Your task to perform on an android device: delete a single message in the gmail app Image 0: 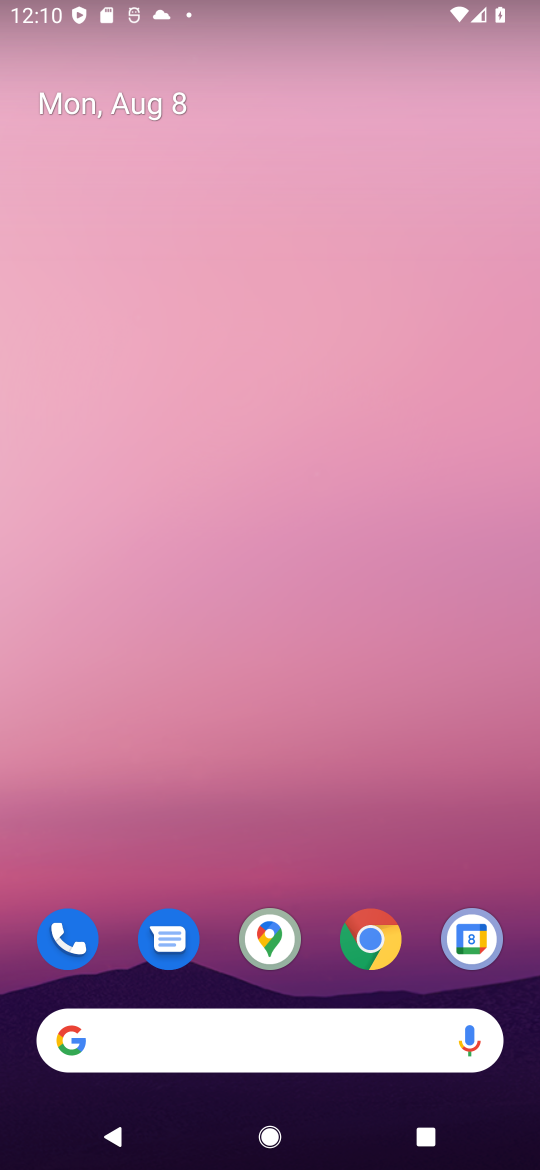
Step 0: drag from (248, 1041) to (293, 529)
Your task to perform on an android device: delete a single message in the gmail app Image 1: 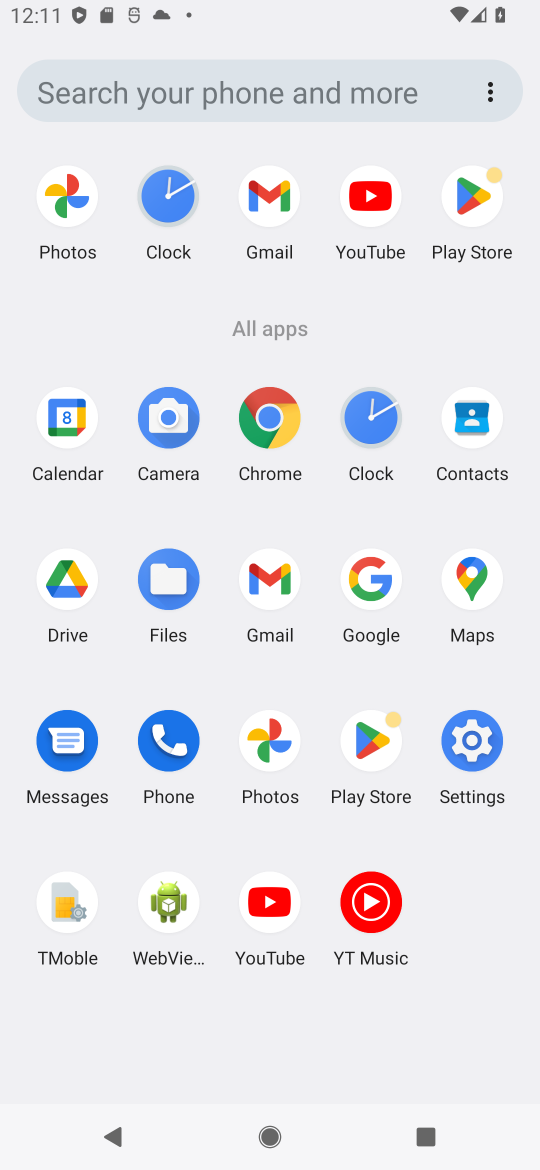
Step 1: click (266, 199)
Your task to perform on an android device: delete a single message in the gmail app Image 2: 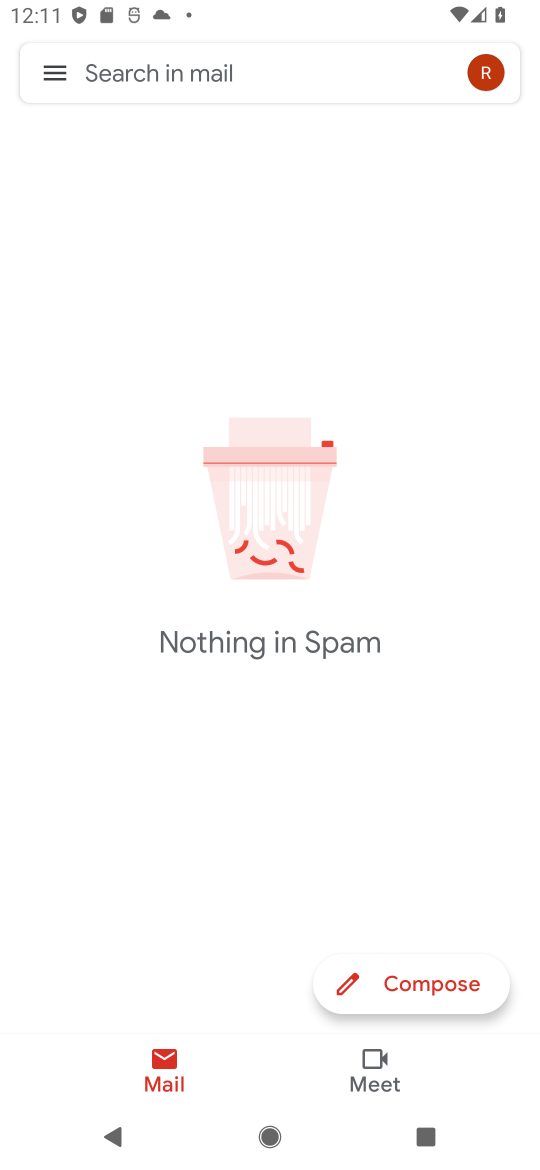
Step 2: click (54, 72)
Your task to perform on an android device: delete a single message in the gmail app Image 3: 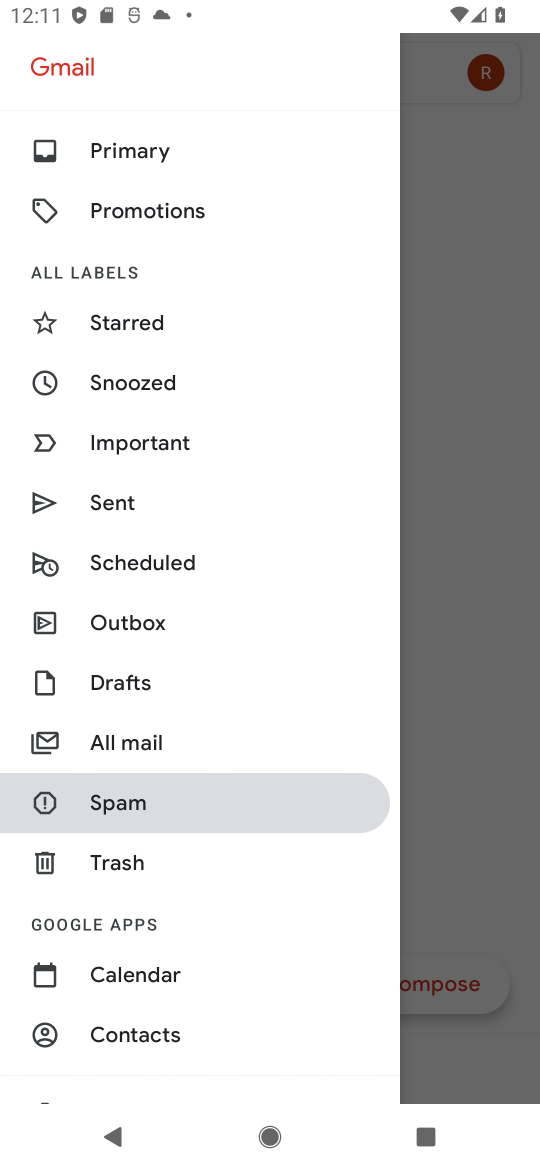
Step 3: click (111, 736)
Your task to perform on an android device: delete a single message in the gmail app Image 4: 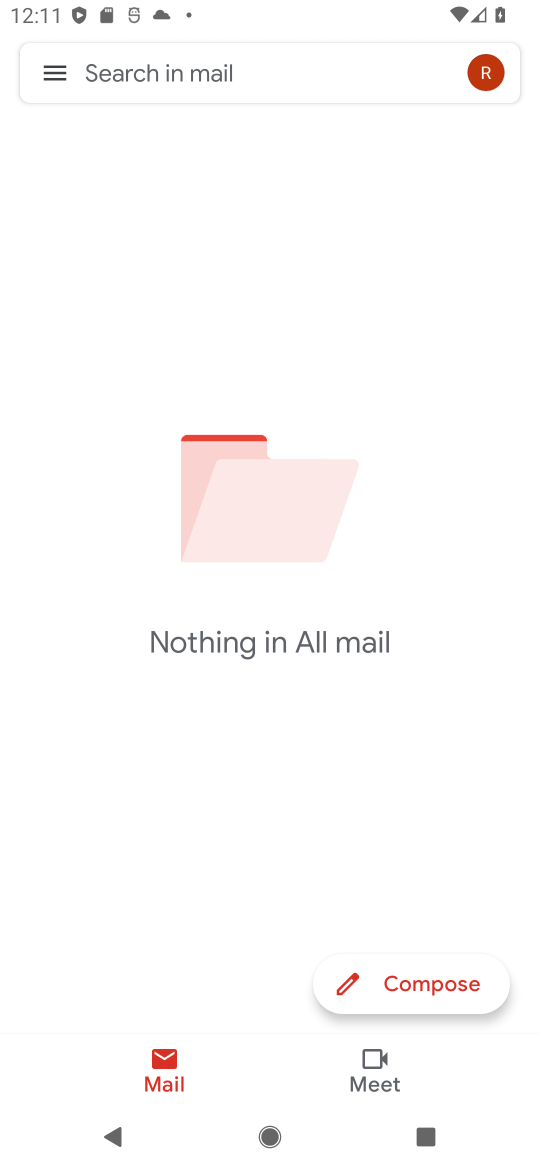
Step 4: click (51, 72)
Your task to perform on an android device: delete a single message in the gmail app Image 5: 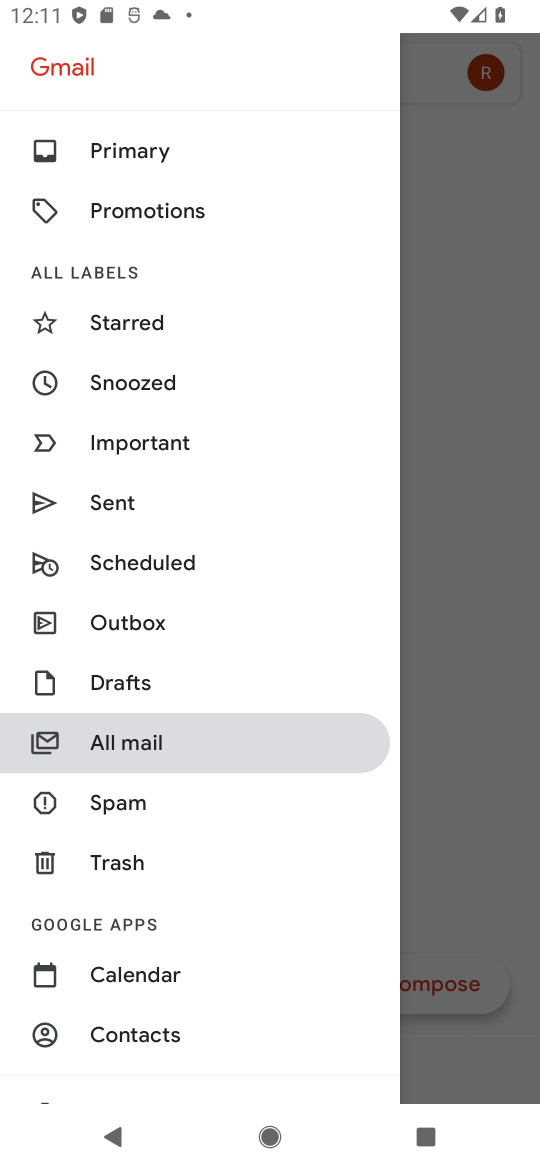
Step 5: click (118, 861)
Your task to perform on an android device: delete a single message in the gmail app Image 6: 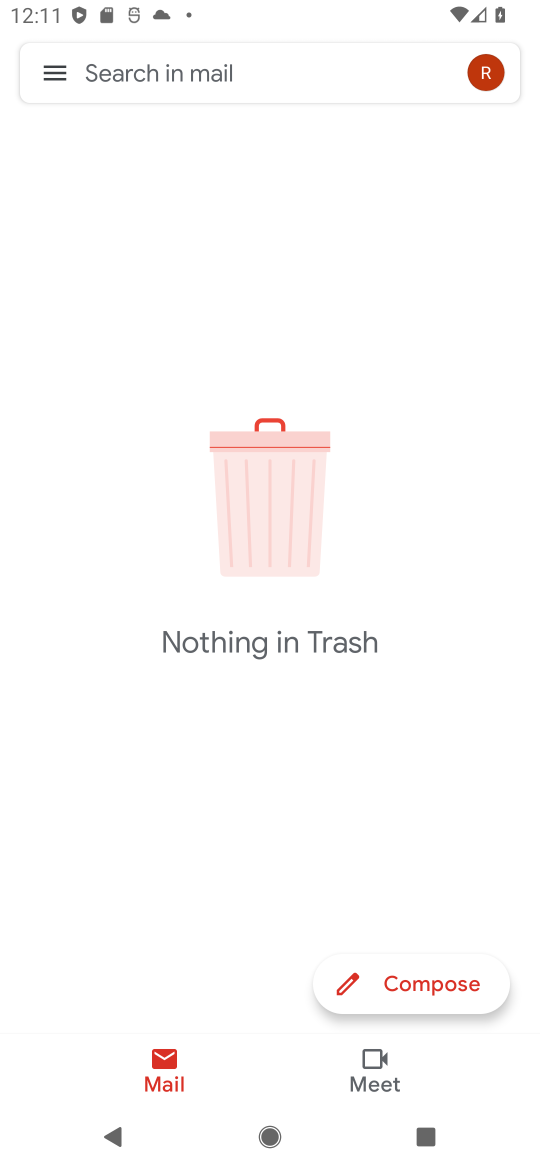
Step 6: click (41, 81)
Your task to perform on an android device: delete a single message in the gmail app Image 7: 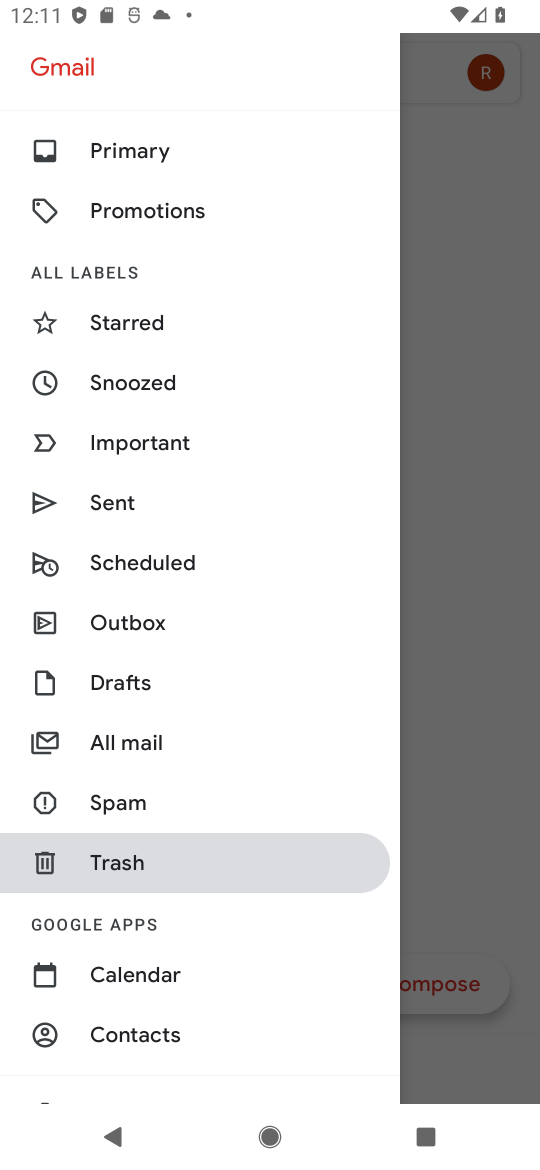
Step 7: click (152, 622)
Your task to perform on an android device: delete a single message in the gmail app Image 8: 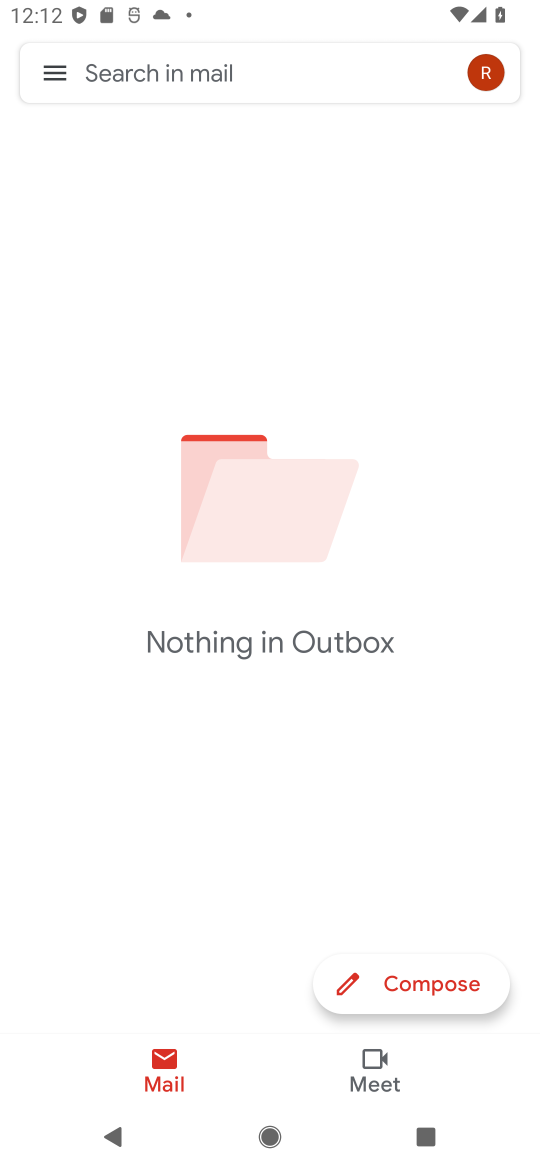
Step 8: task complete